Your task to perform on an android device: Search for a custom made wallet Image 0: 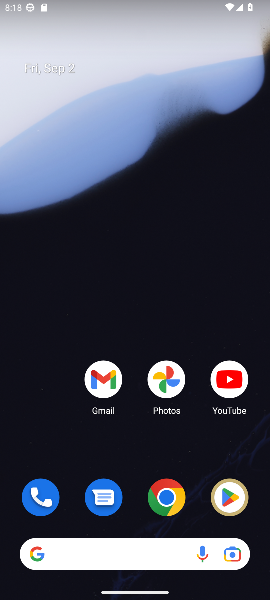
Step 0: click (124, 208)
Your task to perform on an android device: Search for a custom made wallet Image 1: 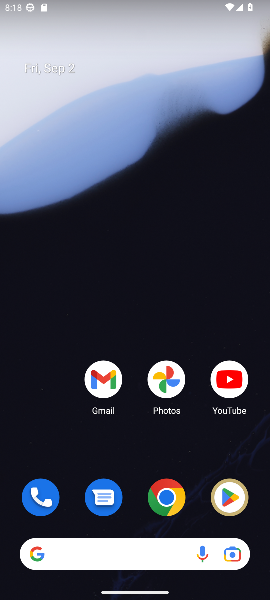
Step 1: drag from (134, 512) to (130, 130)
Your task to perform on an android device: Search for a custom made wallet Image 2: 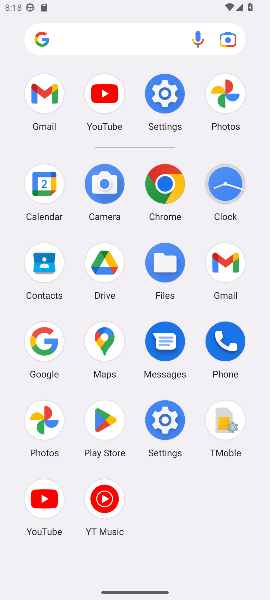
Step 2: click (45, 338)
Your task to perform on an android device: Search for a custom made wallet Image 3: 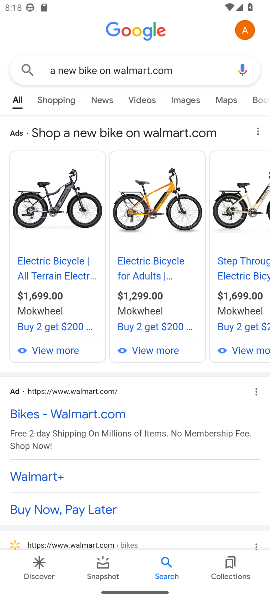
Step 3: click (185, 71)
Your task to perform on an android device: Search for a custom made wallet Image 4: 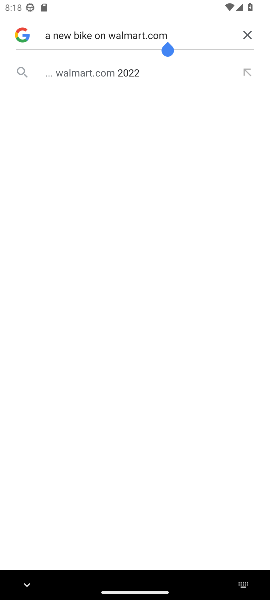
Step 4: click (247, 29)
Your task to perform on an android device: Search for a custom made wallet Image 5: 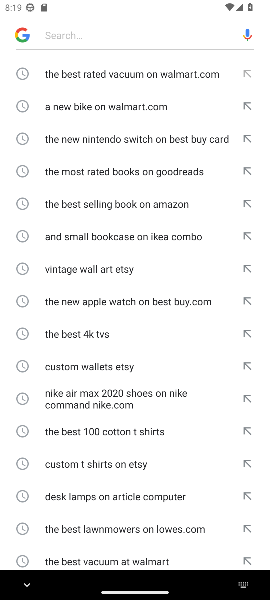
Step 5: type "a custom made wallet"
Your task to perform on an android device: Search for a custom made wallet Image 6: 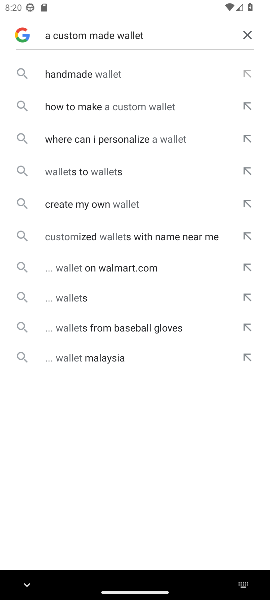
Step 6: click (91, 78)
Your task to perform on an android device: Search for a custom made wallet Image 7: 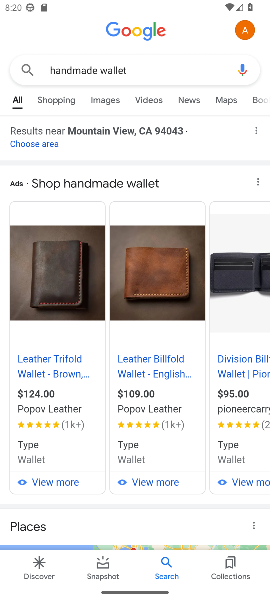
Step 7: task complete